Your task to perform on an android device: Show me productivity apps on the Play Store Image 0: 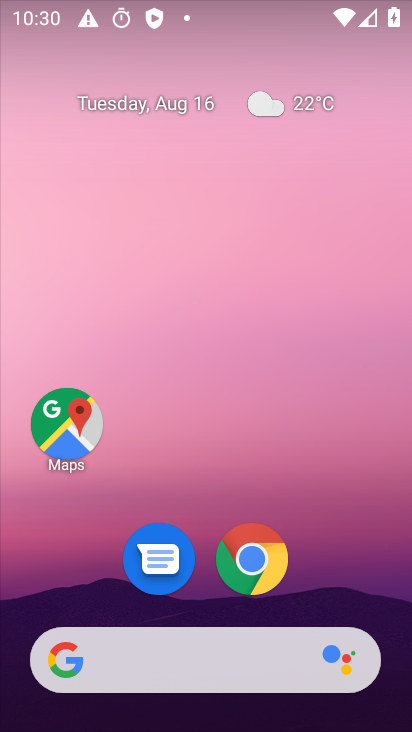
Step 0: drag from (201, 591) to (201, 170)
Your task to perform on an android device: Show me productivity apps on the Play Store Image 1: 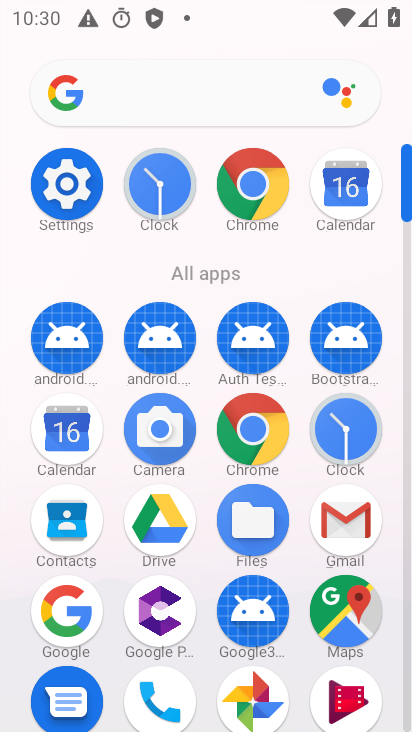
Step 1: drag from (196, 325) to (203, 74)
Your task to perform on an android device: Show me productivity apps on the Play Store Image 2: 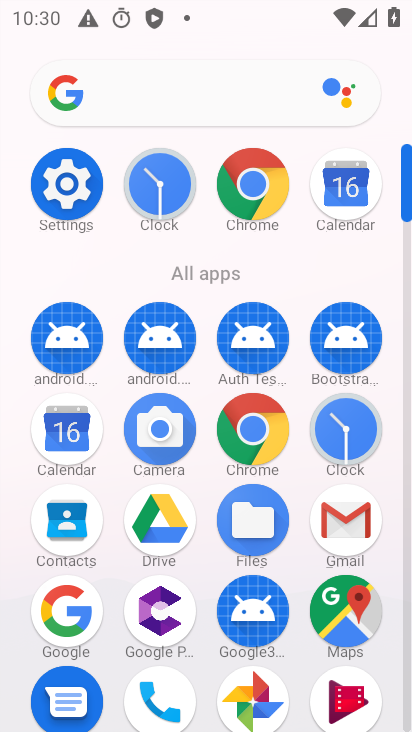
Step 2: drag from (201, 659) to (255, 366)
Your task to perform on an android device: Show me productivity apps on the Play Store Image 3: 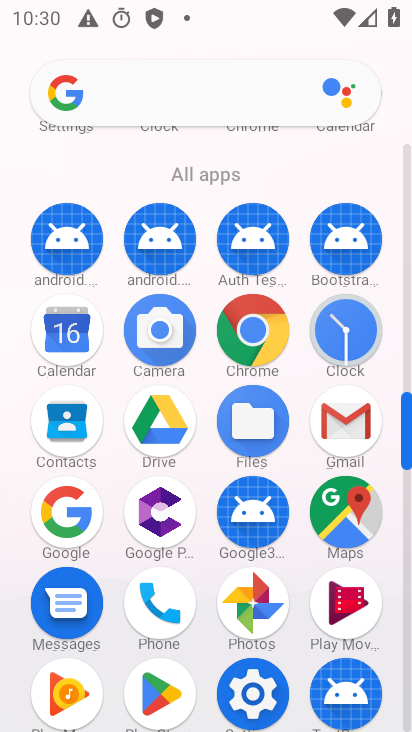
Step 3: click (147, 682)
Your task to perform on an android device: Show me productivity apps on the Play Store Image 4: 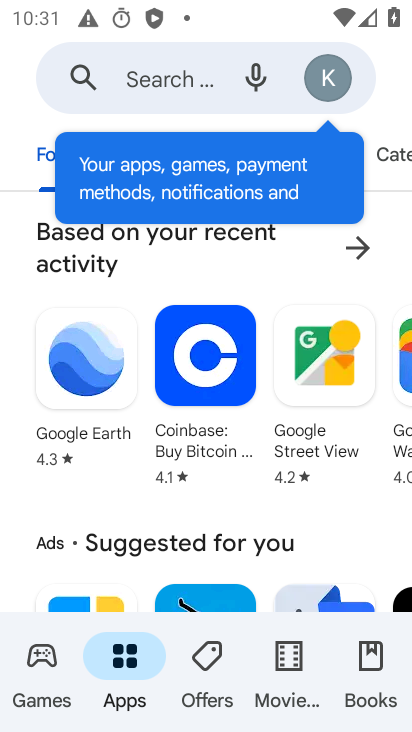
Step 4: click (402, 147)
Your task to perform on an android device: Show me productivity apps on the Play Store Image 5: 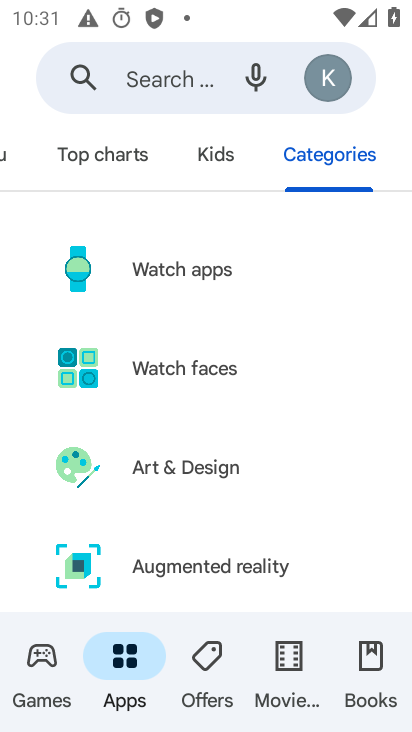
Step 5: drag from (206, 494) to (223, 227)
Your task to perform on an android device: Show me productivity apps on the Play Store Image 6: 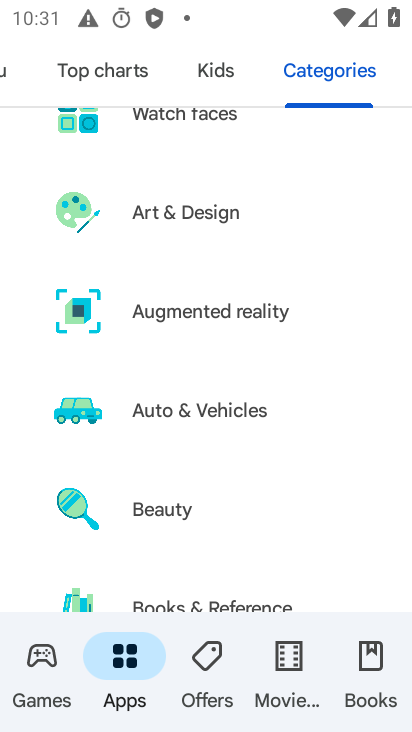
Step 6: drag from (218, 427) to (231, 142)
Your task to perform on an android device: Show me productivity apps on the Play Store Image 7: 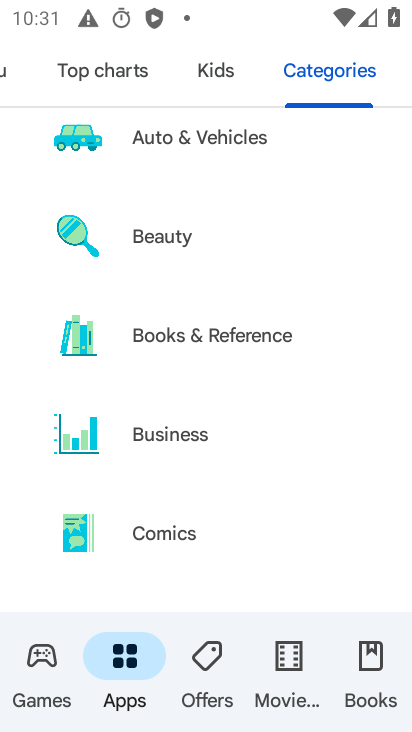
Step 7: drag from (231, 550) to (226, 162)
Your task to perform on an android device: Show me productivity apps on the Play Store Image 8: 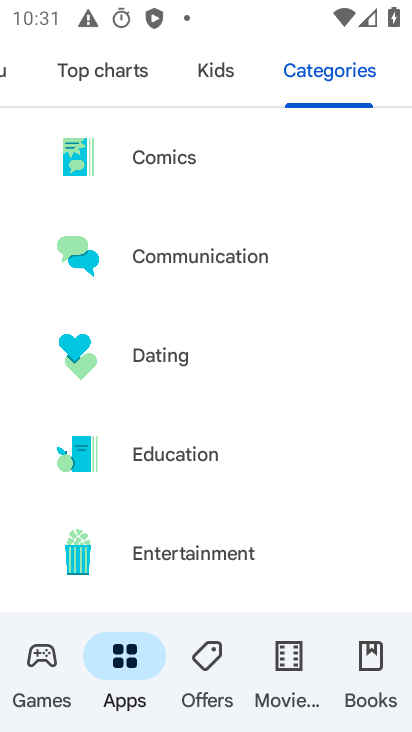
Step 8: drag from (216, 395) to (219, 135)
Your task to perform on an android device: Show me productivity apps on the Play Store Image 9: 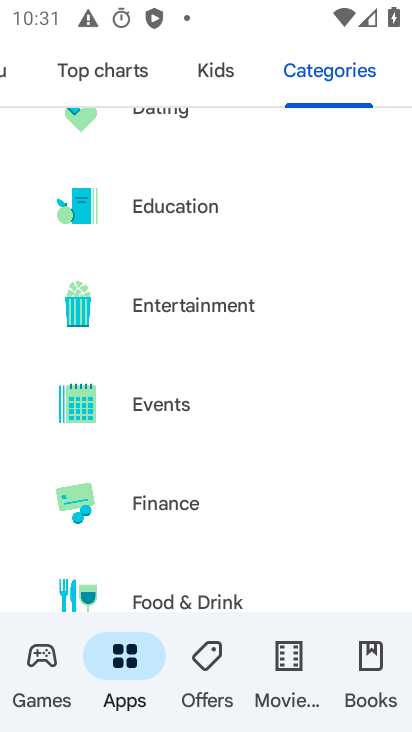
Step 9: drag from (214, 521) to (224, 229)
Your task to perform on an android device: Show me productivity apps on the Play Store Image 10: 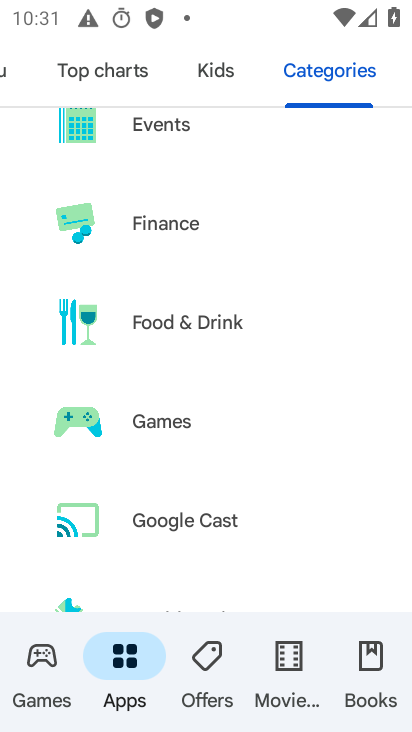
Step 10: drag from (258, 543) to (258, 254)
Your task to perform on an android device: Show me productivity apps on the Play Store Image 11: 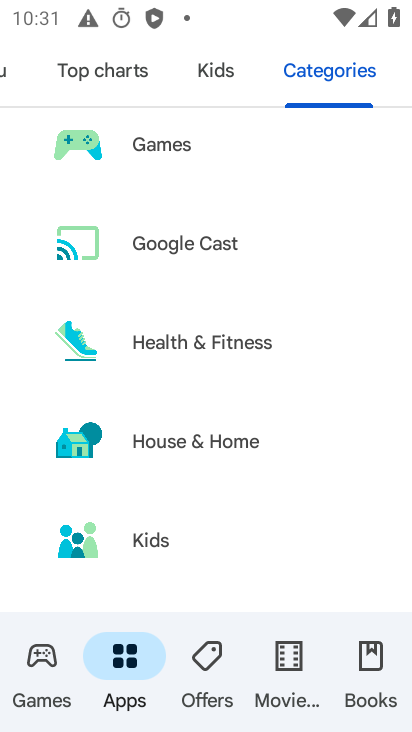
Step 11: drag from (219, 491) to (229, 173)
Your task to perform on an android device: Show me productivity apps on the Play Store Image 12: 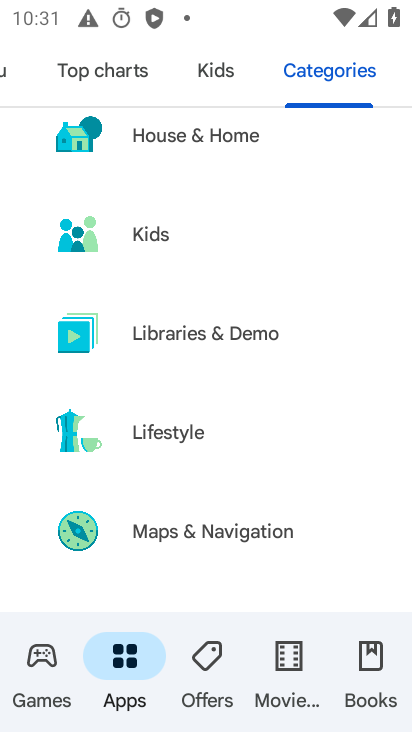
Step 12: drag from (231, 587) to (231, 353)
Your task to perform on an android device: Show me productivity apps on the Play Store Image 13: 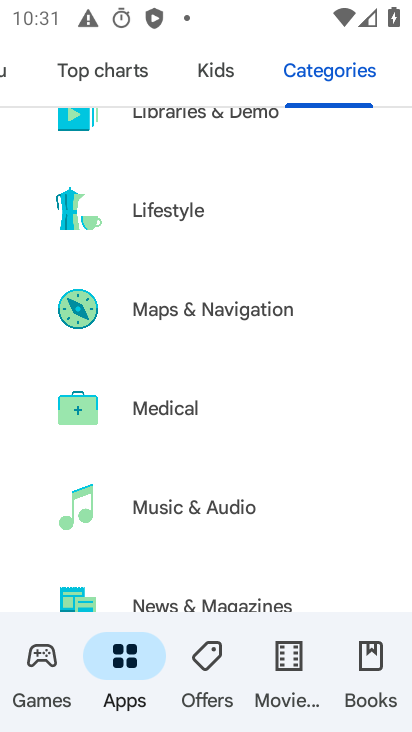
Step 13: drag from (252, 540) to (257, 98)
Your task to perform on an android device: Show me productivity apps on the Play Store Image 14: 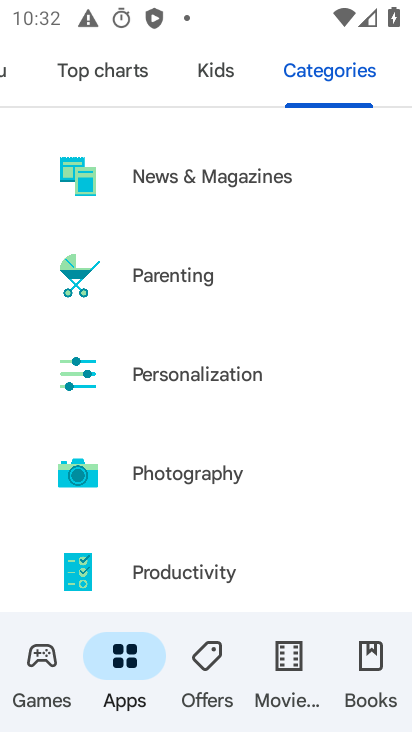
Step 14: click (178, 567)
Your task to perform on an android device: Show me productivity apps on the Play Store Image 15: 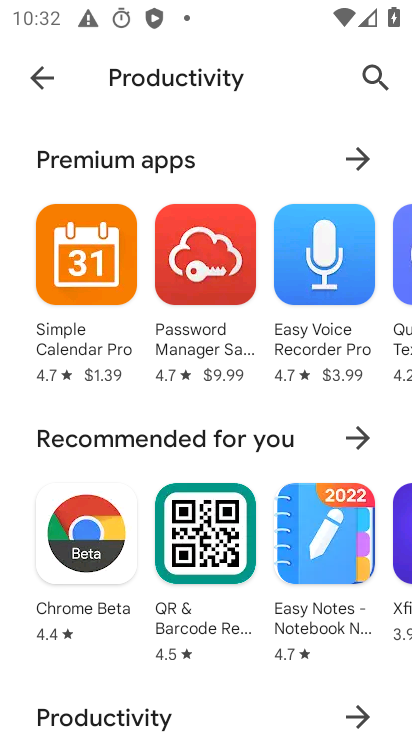
Step 15: task complete